Your task to perform on an android device: turn off airplane mode Image 0: 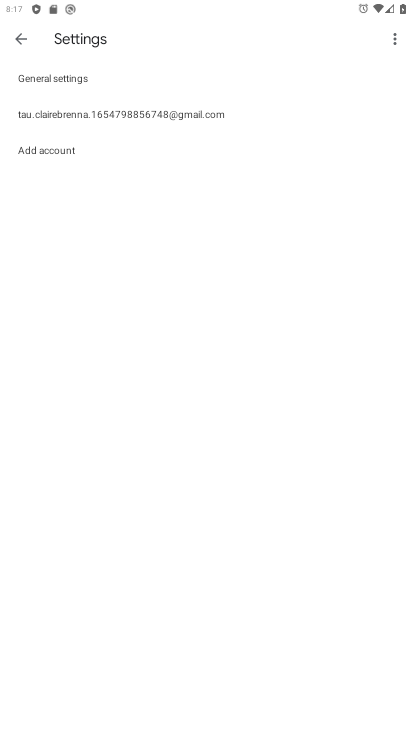
Step 0: press home button
Your task to perform on an android device: turn off airplane mode Image 1: 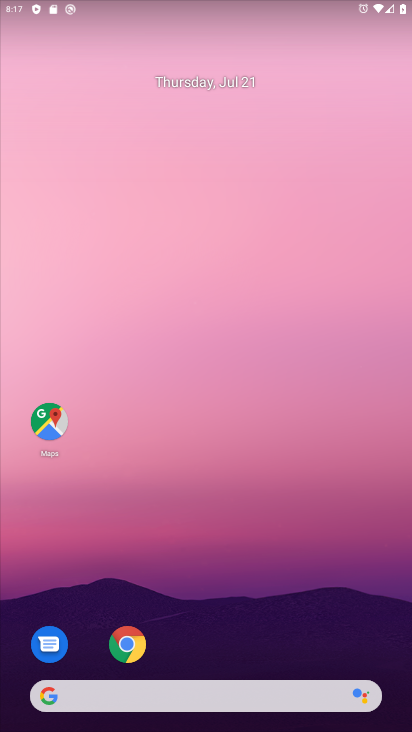
Step 1: drag from (328, 596) to (340, 102)
Your task to perform on an android device: turn off airplane mode Image 2: 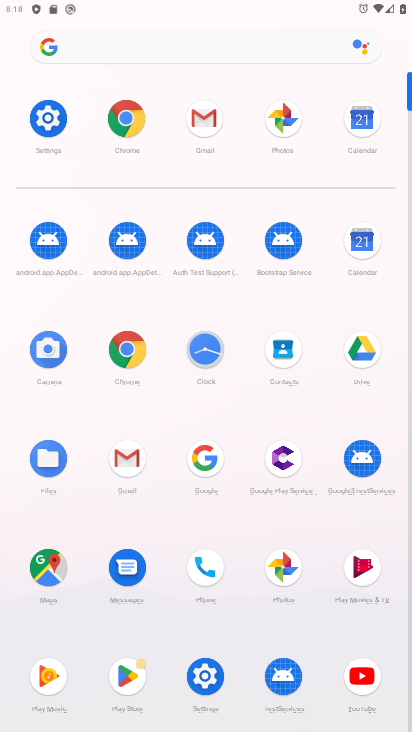
Step 2: click (59, 117)
Your task to perform on an android device: turn off airplane mode Image 3: 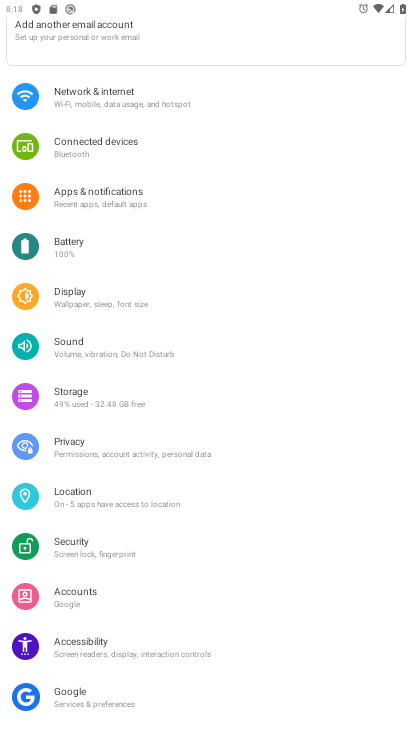
Step 3: drag from (294, 204) to (300, 295)
Your task to perform on an android device: turn off airplane mode Image 4: 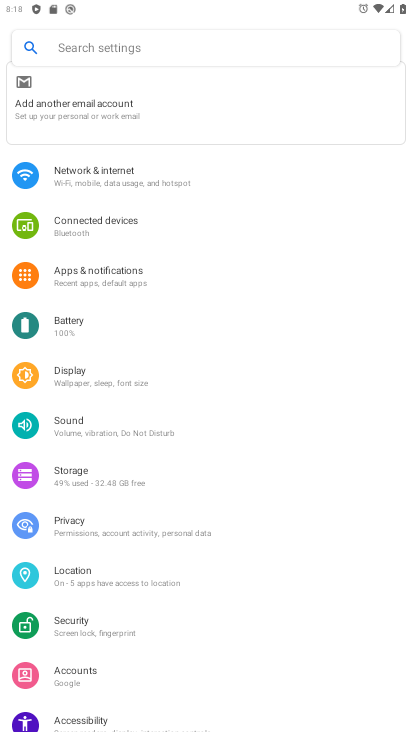
Step 4: drag from (300, 230) to (288, 321)
Your task to perform on an android device: turn off airplane mode Image 5: 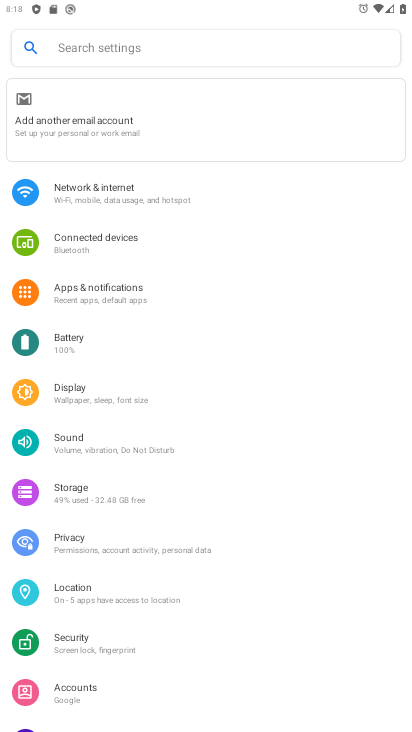
Step 5: drag from (320, 440) to (321, 393)
Your task to perform on an android device: turn off airplane mode Image 6: 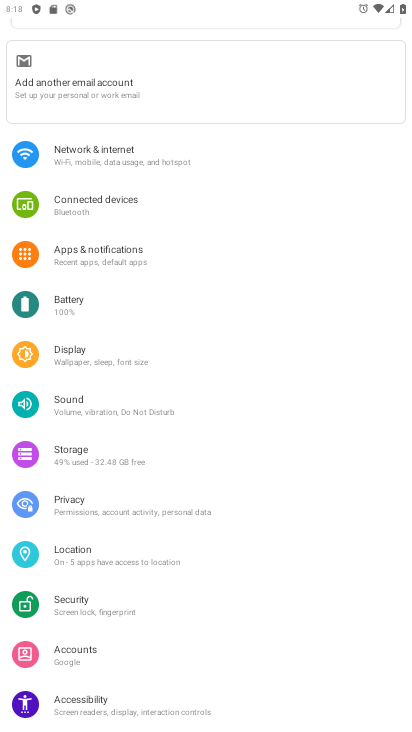
Step 6: drag from (328, 477) to (326, 325)
Your task to perform on an android device: turn off airplane mode Image 7: 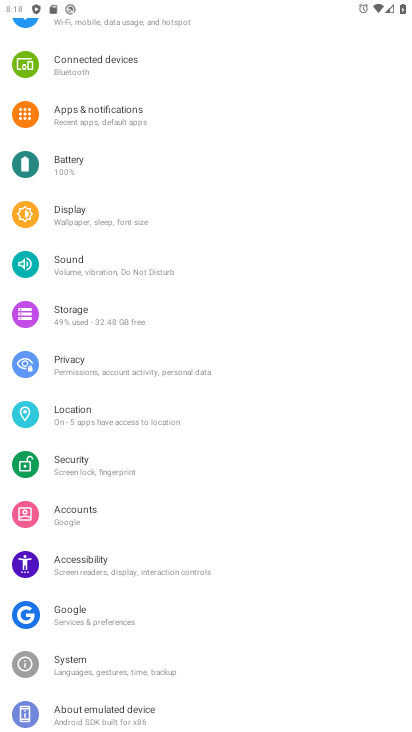
Step 7: drag from (329, 259) to (325, 337)
Your task to perform on an android device: turn off airplane mode Image 8: 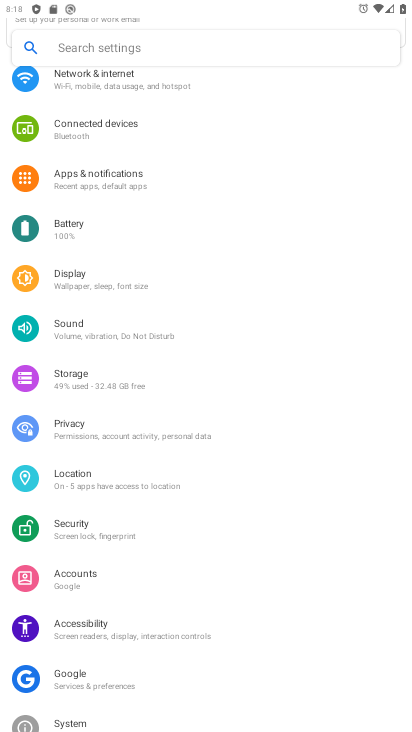
Step 8: drag from (326, 207) to (309, 406)
Your task to perform on an android device: turn off airplane mode Image 9: 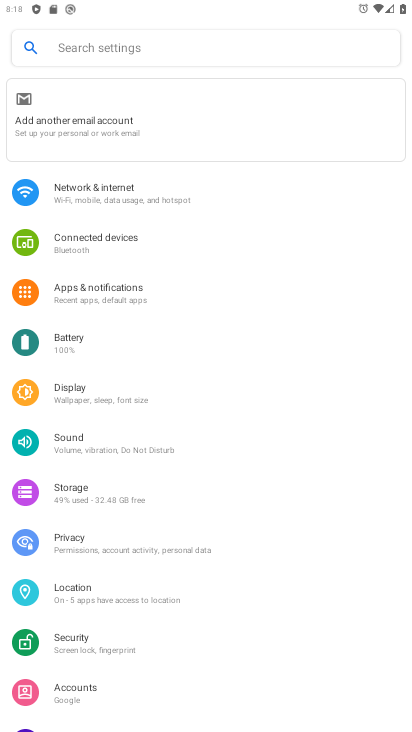
Step 9: click (262, 200)
Your task to perform on an android device: turn off airplane mode Image 10: 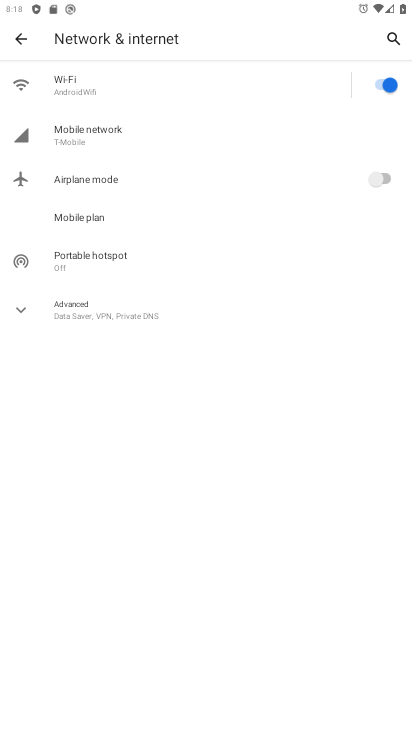
Step 10: task complete